Your task to perform on an android device: change timer sound Image 0: 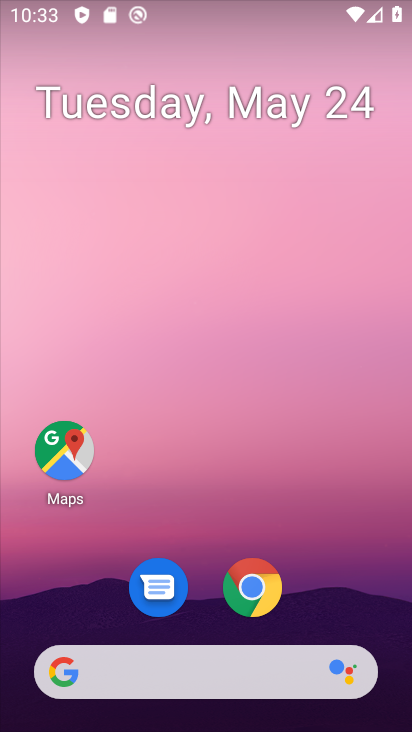
Step 0: drag from (389, 590) to (372, 162)
Your task to perform on an android device: change timer sound Image 1: 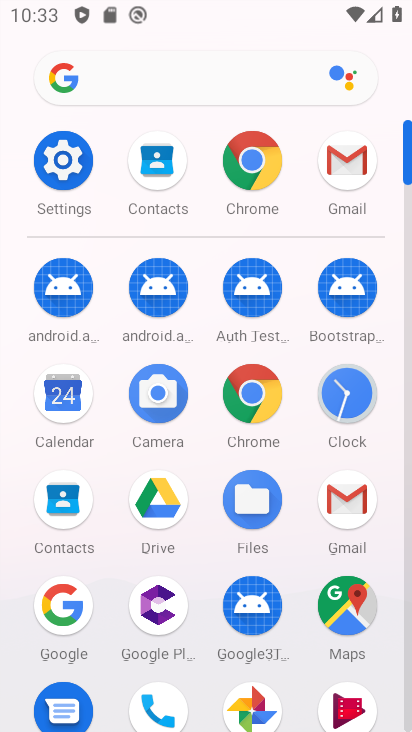
Step 1: click (62, 161)
Your task to perform on an android device: change timer sound Image 2: 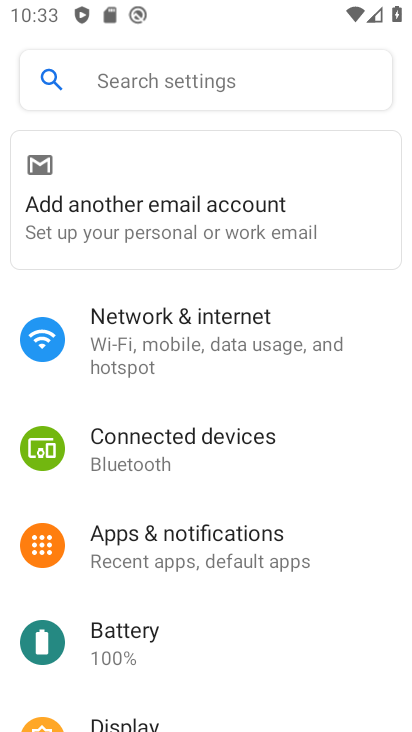
Step 2: press home button
Your task to perform on an android device: change timer sound Image 3: 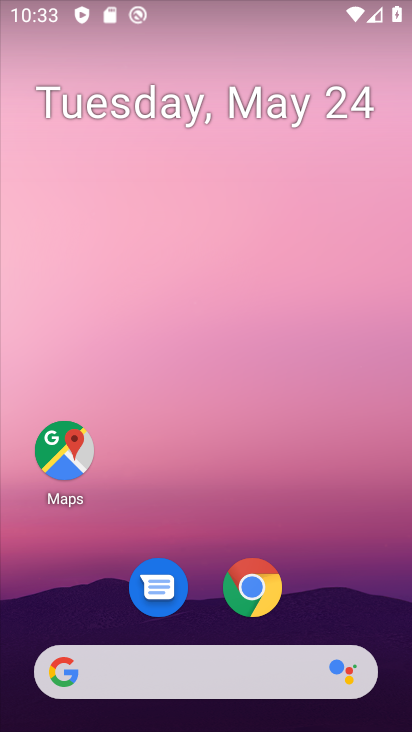
Step 3: drag from (367, 623) to (320, 89)
Your task to perform on an android device: change timer sound Image 4: 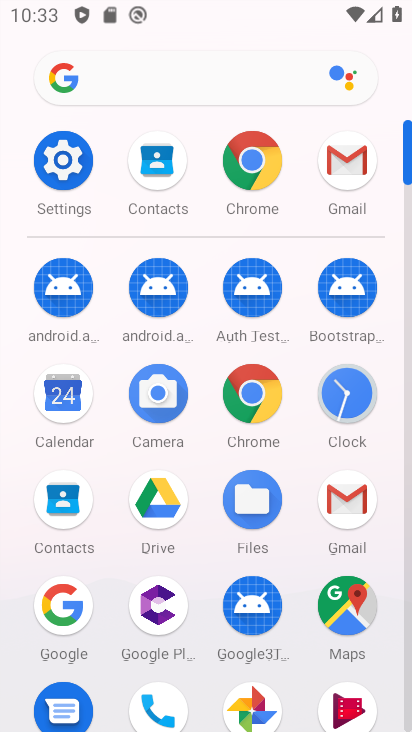
Step 4: click (345, 405)
Your task to perform on an android device: change timer sound Image 5: 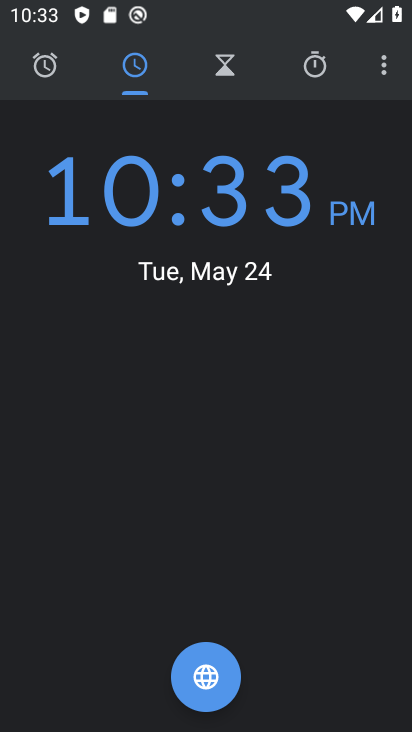
Step 5: click (385, 57)
Your task to perform on an android device: change timer sound Image 6: 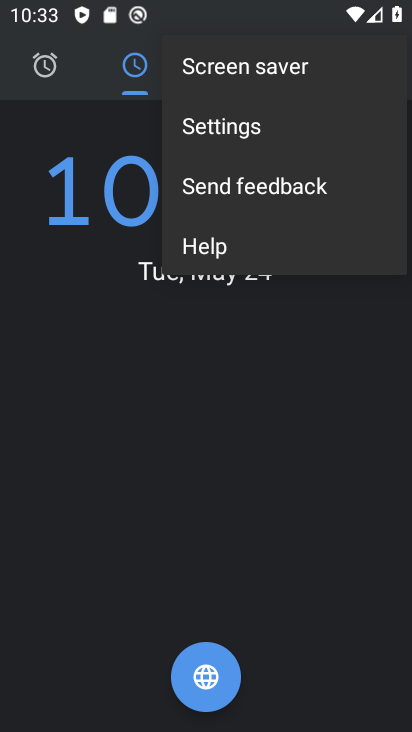
Step 6: click (291, 123)
Your task to perform on an android device: change timer sound Image 7: 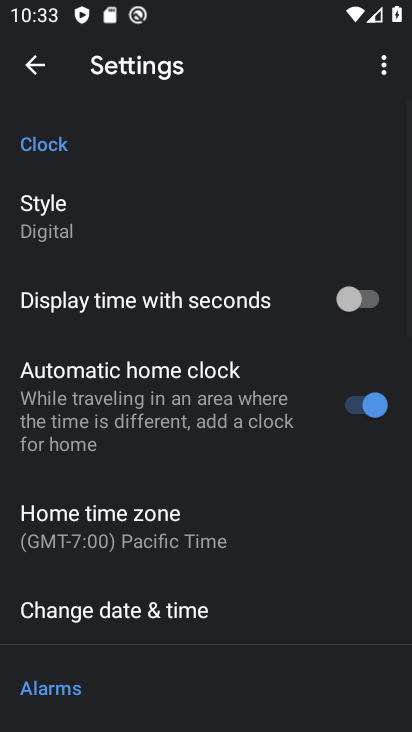
Step 7: drag from (288, 617) to (158, 1)
Your task to perform on an android device: change timer sound Image 8: 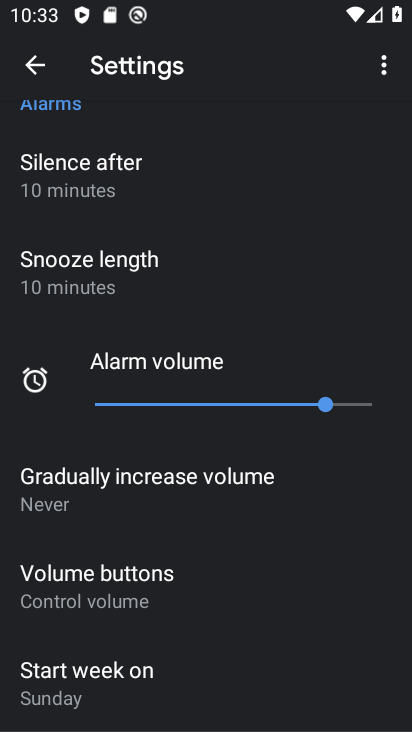
Step 8: drag from (278, 334) to (340, 2)
Your task to perform on an android device: change timer sound Image 9: 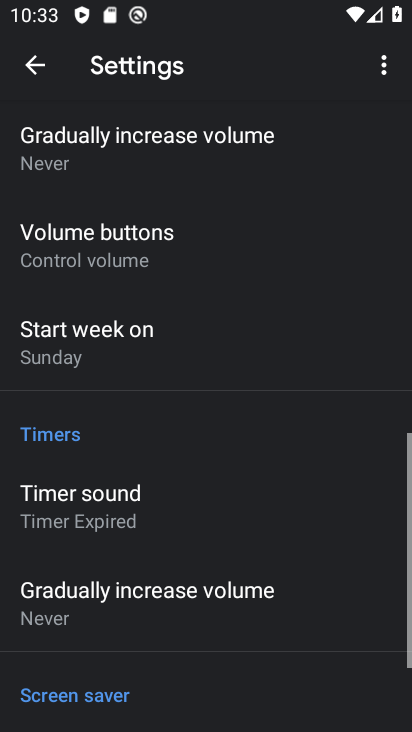
Step 9: drag from (311, 688) to (265, 474)
Your task to perform on an android device: change timer sound Image 10: 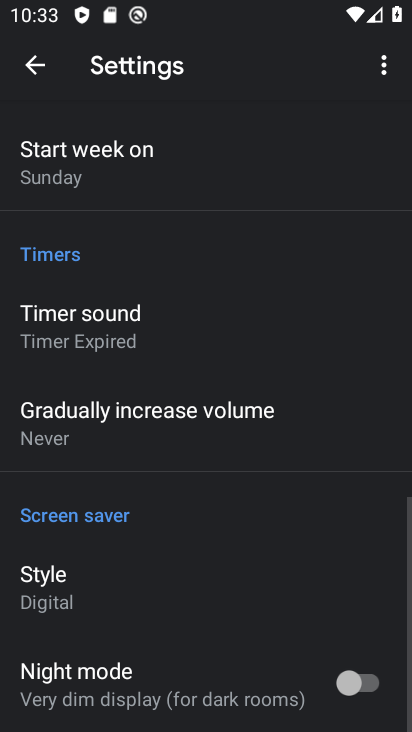
Step 10: drag from (116, 382) to (119, 324)
Your task to perform on an android device: change timer sound Image 11: 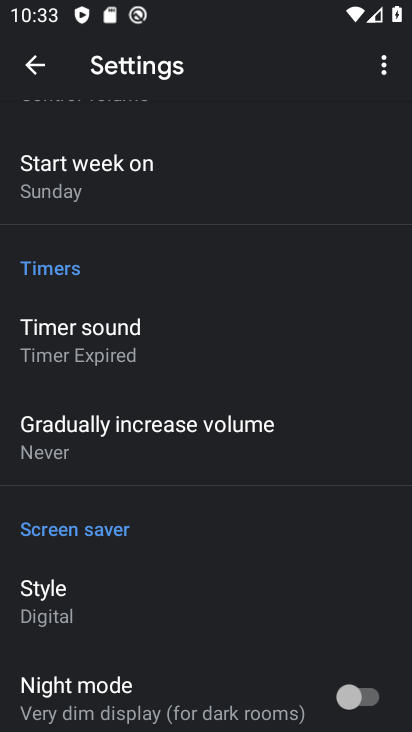
Step 11: click (119, 324)
Your task to perform on an android device: change timer sound Image 12: 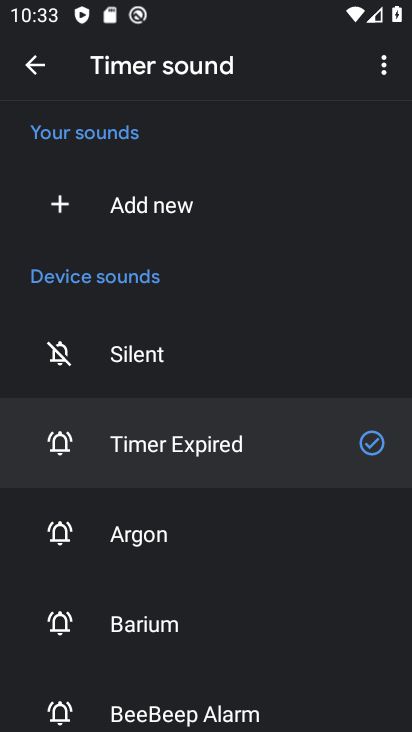
Step 12: click (126, 542)
Your task to perform on an android device: change timer sound Image 13: 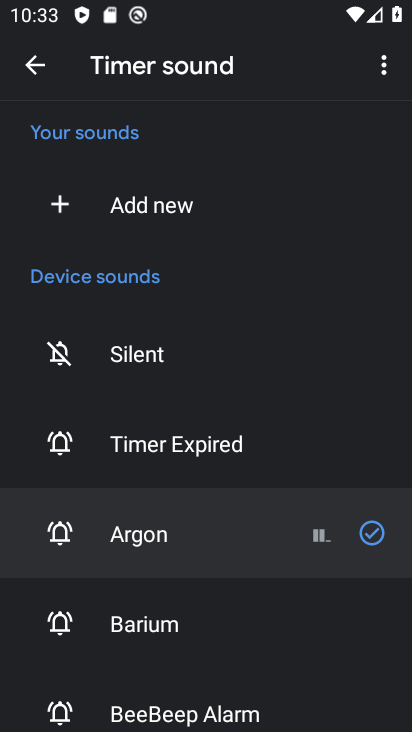
Step 13: task complete